Your task to perform on an android device: Open Google Image 0: 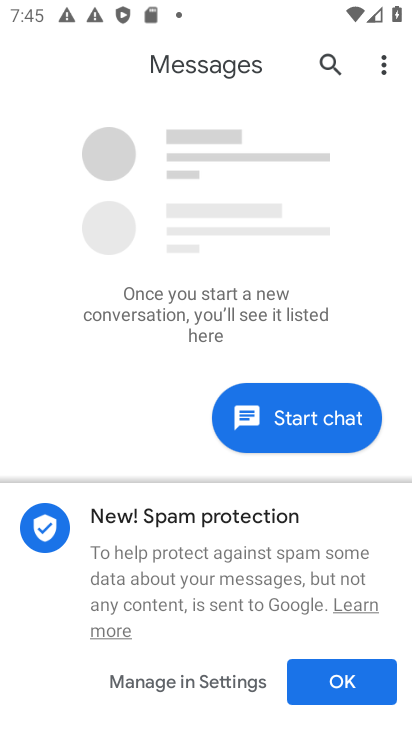
Step 0: press home button
Your task to perform on an android device: Open Google Image 1: 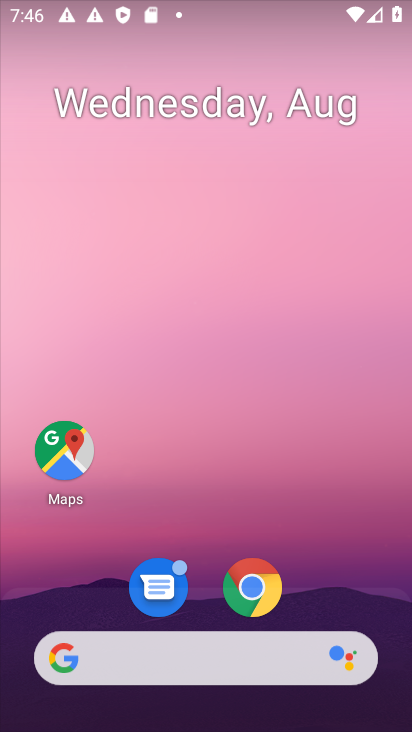
Step 1: click (122, 681)
Your task to perform on an android device: Open Google Image 2: 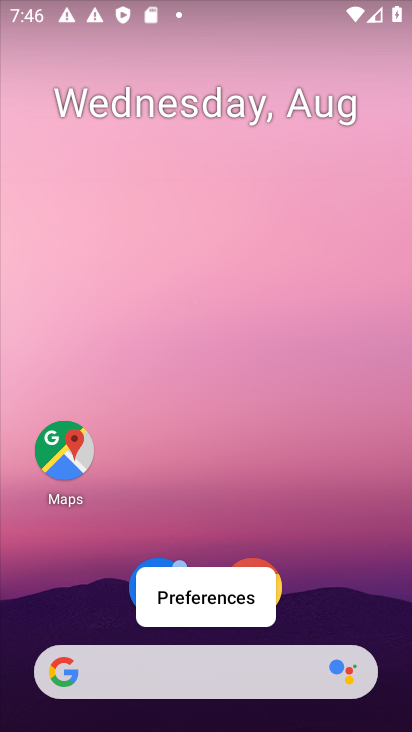
Step 2: click (122, 681)
Your task to perform on an android device: Open Google Image 3: 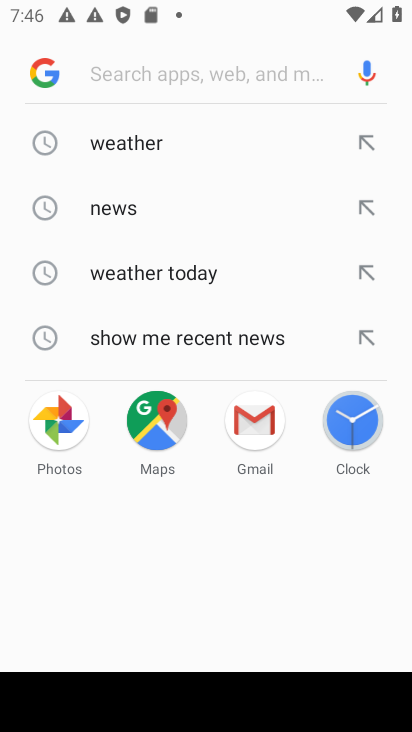
Step 3: task complete